Your task to perform on an android device: Check the news Image 0: 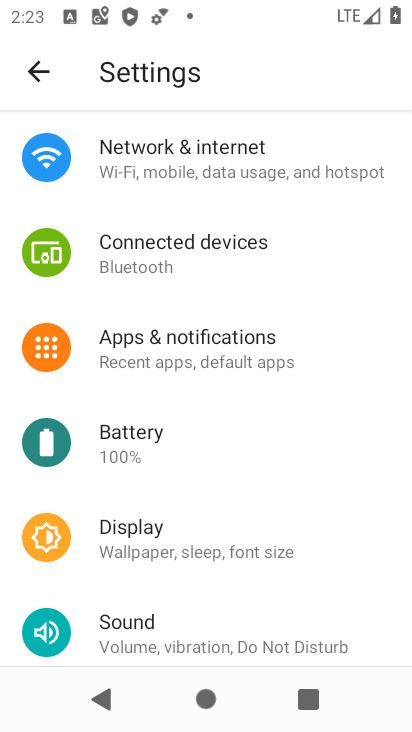
Step 0: press home button
Your task to perform on an android device: Check the news Image 1: 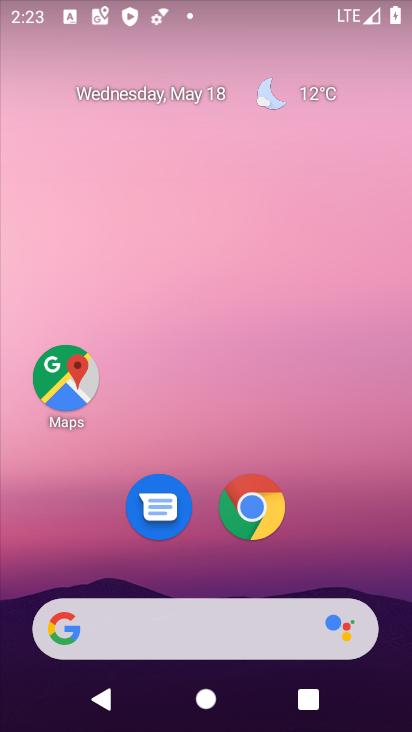
Step 1: task complete